Your task to perform on an android device: Open Chrome and go to the settings page Image 0: 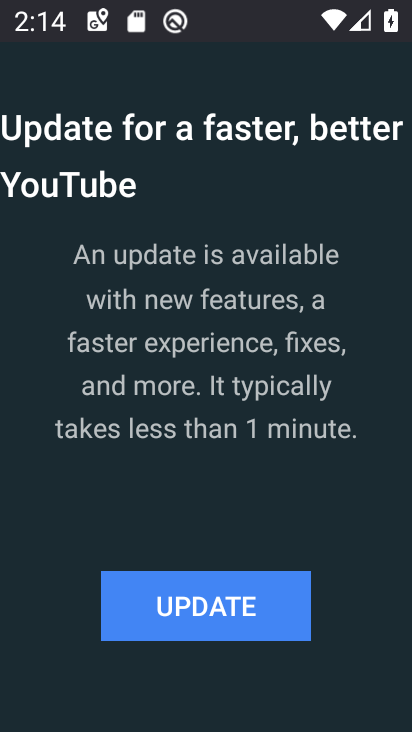
Step 0: press home button
Your task to perform on an android device: Open Chrome and go to the settings page Image 1: 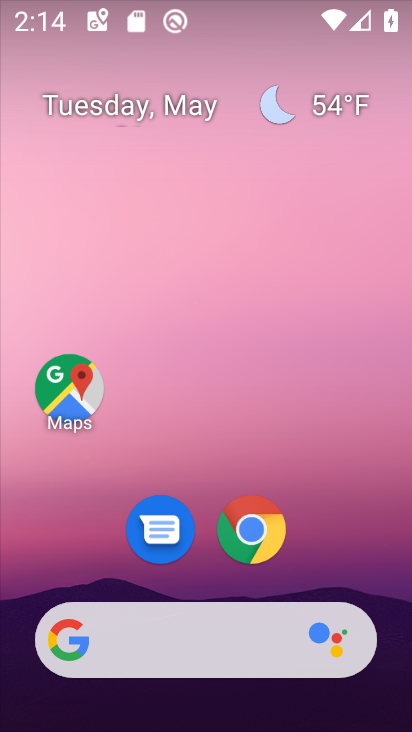
Step 1: drag from (318, 581) to (314, 246)
Your task to perform on an android device: Open Chrome and go to the settings page Image 2: 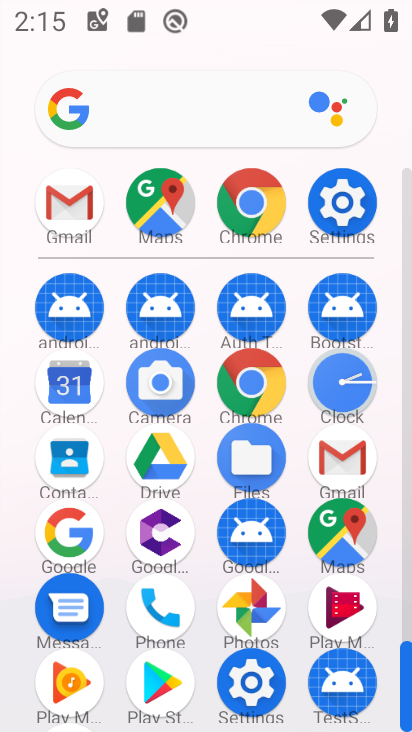
Step 2: click (252, 214)
Your task to perform on an android device: Open Chrome and go to the settings page Image 3: 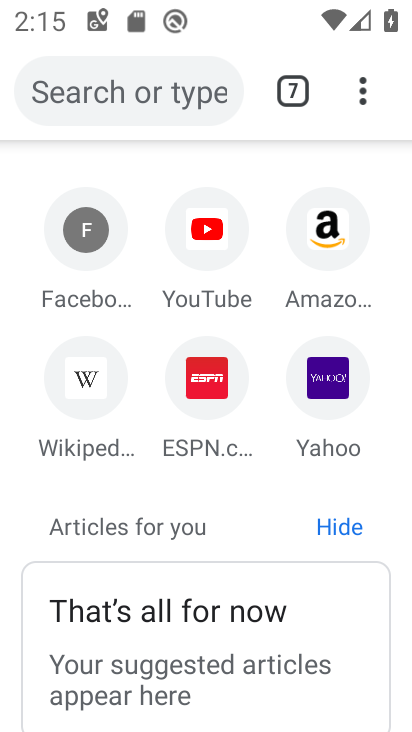
Step 3: click (358, 96)
Your task to perform on an android device: Open Chrome and go to the settings page Image 4: 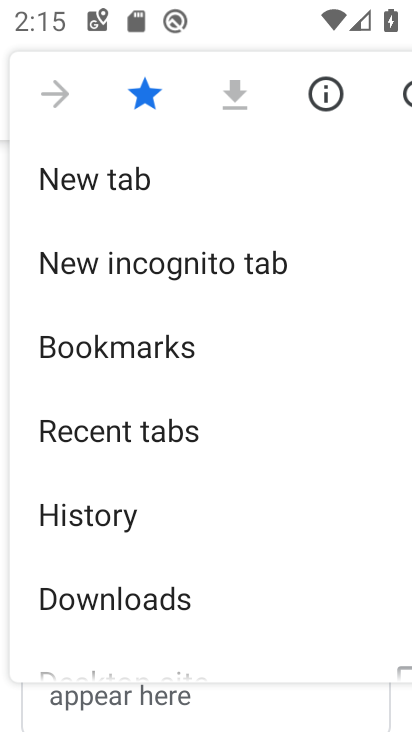
Step 4: drag from (148, 537) to (192, 235)
Your task to perform on an android device: Open Chrome and go to the settings page Image 5: 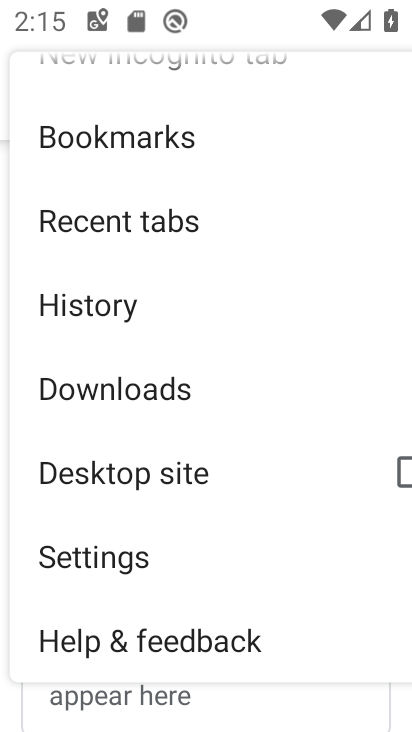
Step 5: click (104, 549)
Your task to perform on an android device: Open Chrome and go to the settings page Image 6: 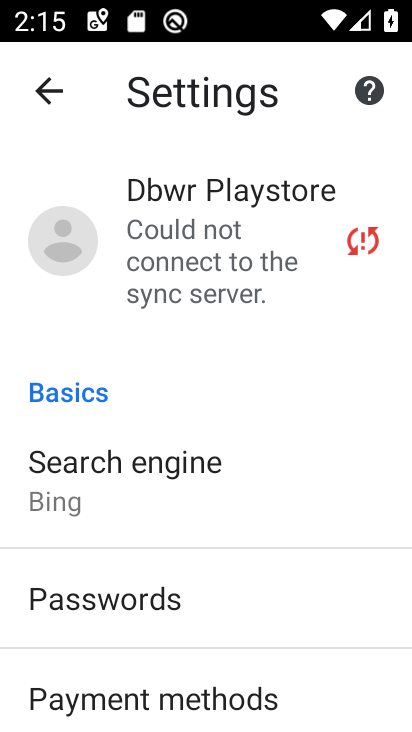
Step 6: task complete